Your task to perform on an android device: Open wifi settings Image 0: 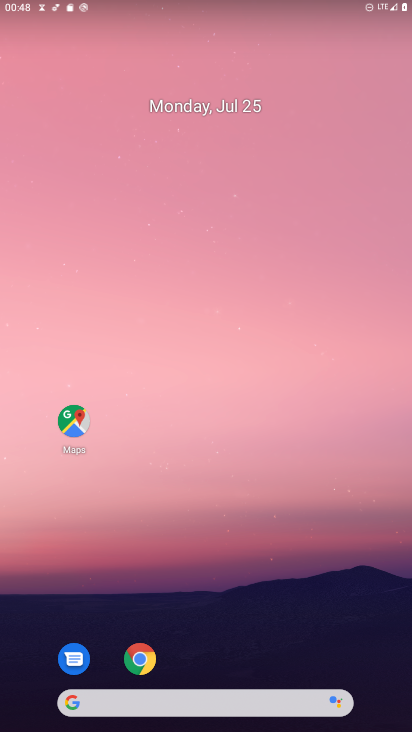
Step 0: drag from (305, 612) to (283, 124)
Your task to perform on an android device: Open wifi settings Image 1: 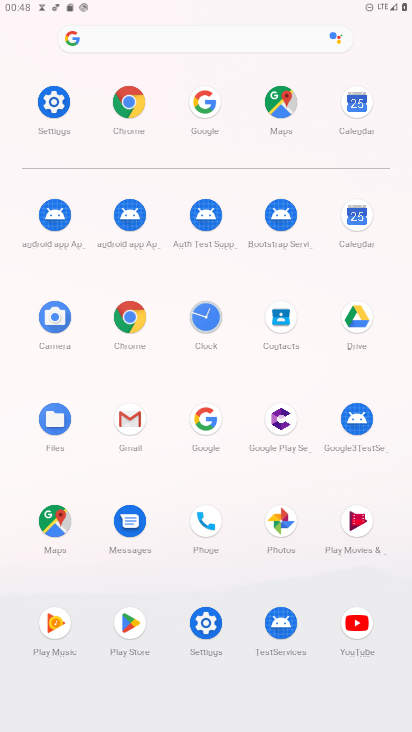
Step 1: click (59, 98)
Your task to perform on an android device: Open wifi settings Image 2: 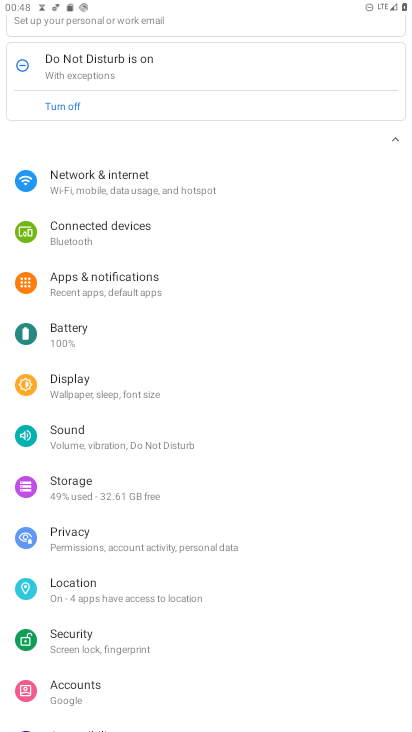
Step 2: click (112, 186)
Your task to perform on an android device: Open wifi settings Image 3: 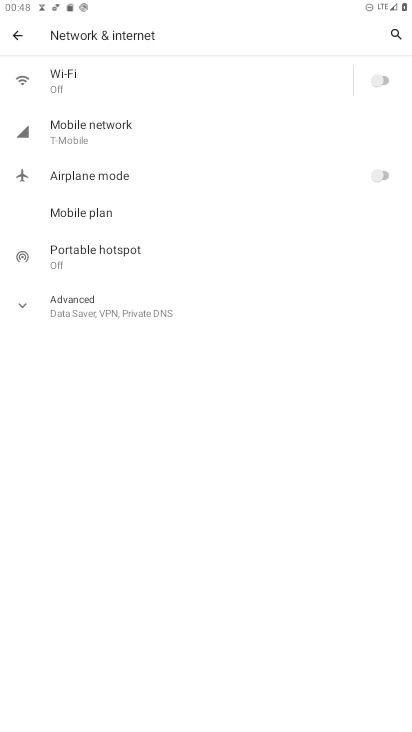
Step 3: click (288, 86)
Your task to perform on an android device: Open wifi settings Image 4: 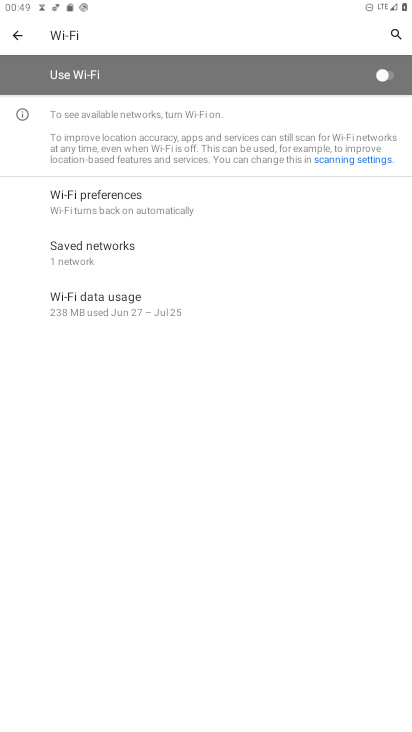
Step 4: task complete